Your task to perform on an android device: Search for seafood restaurants on Google Maps Image 0: 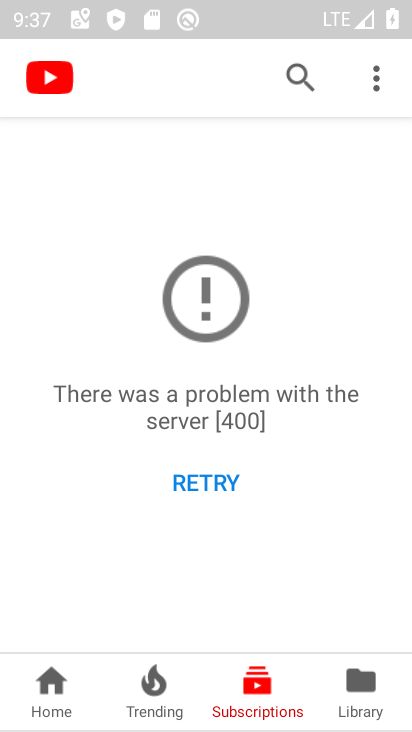
Step 0: press home button
Your task to perform on an android device: Search for seafood restaurants on Google Maps Image 1: 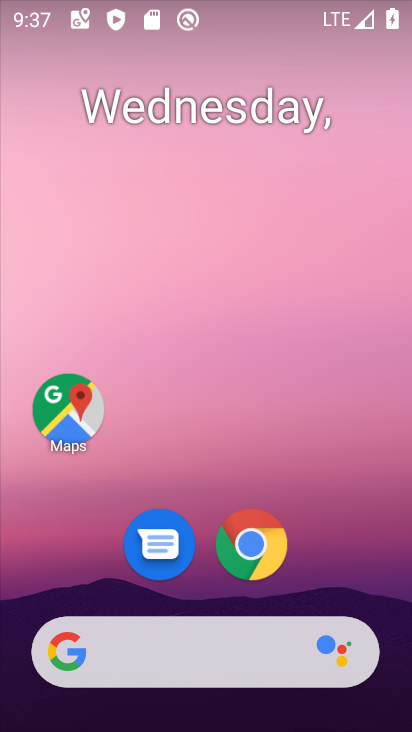
Step 1: click (82, 404)
Your task to perform on an android device: Search for seafood restaurants on Google Maps Image 2: 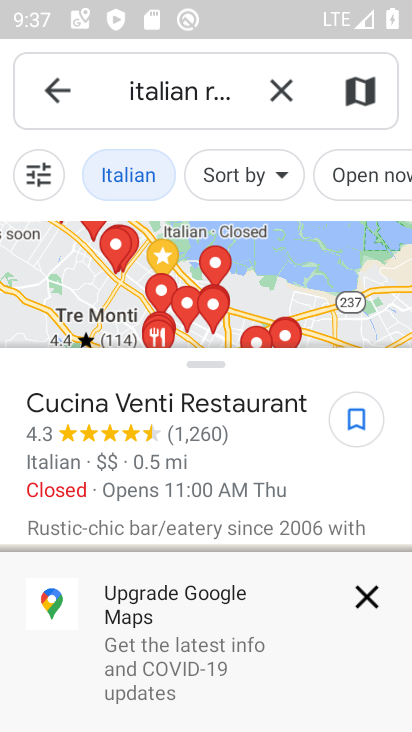
Step 2: click (275, 89)
Your task to perform on an android device: Search for seafood restaurants on Google Maps Image 3: 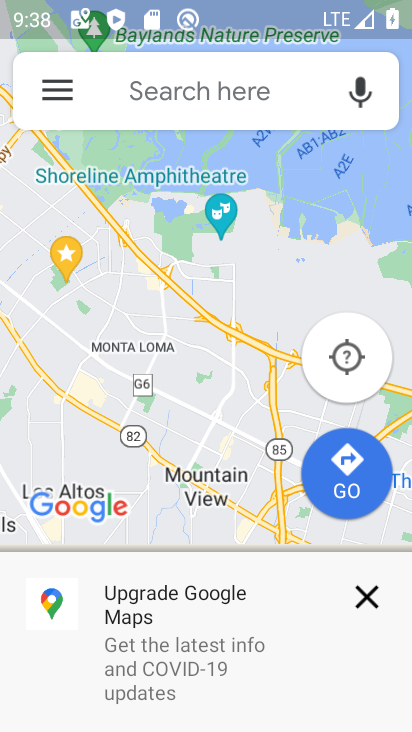
Step 3: click (167, 75)
Your task to perform on an android device: Search for seafood restaurants on Google Maps Image 4: 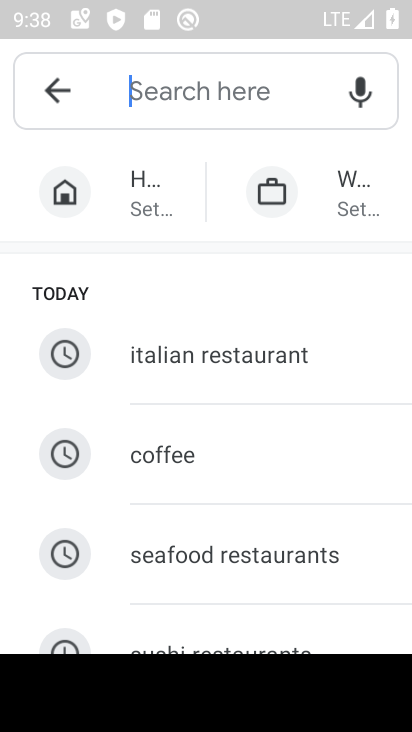
Step 4: click (241, 537)
Your task to perform on an android device: Search for seafood restaurants on Google Maps Image 5: 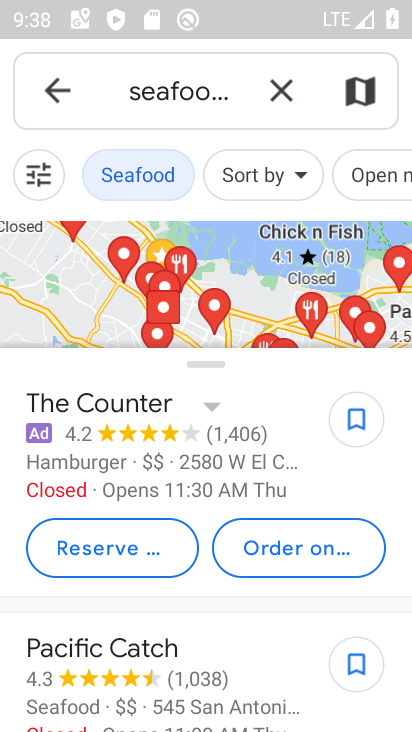
Step 5: task complete